Your task to perform on an android device: Search for pizza restaurants on Maps Image 0: 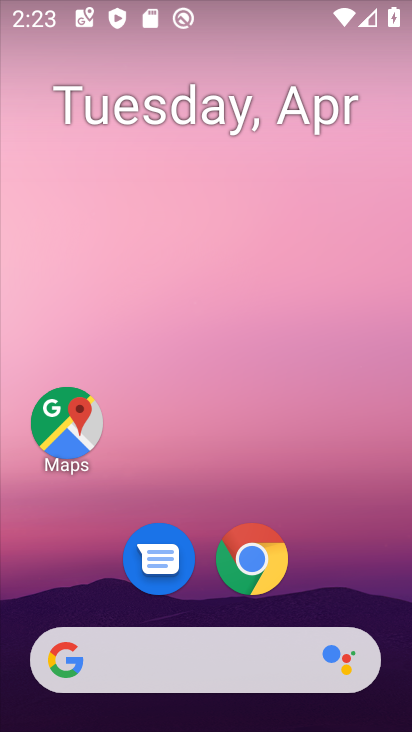
Step 0: drag from (177, 584) to (254, 129)
Your task to perform on an android device: Search for pizza restaurants on Maps Image 1: 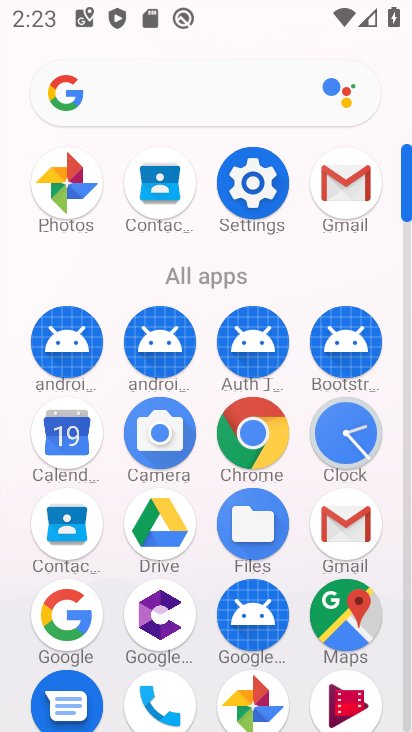
Step 1: click (356, 619)
Your task to perform on an android device: Search for pizza restaurants on Maps Image 2: 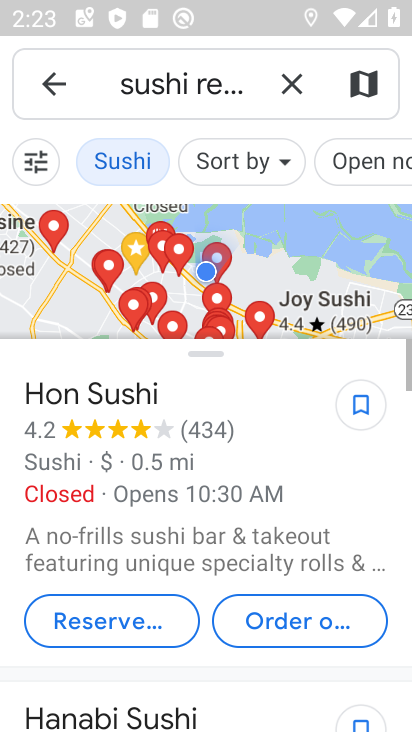
Step 2: click (295, 84)
Your task to perform on an android device: Search for pizza restaurants on Maps Image 3: 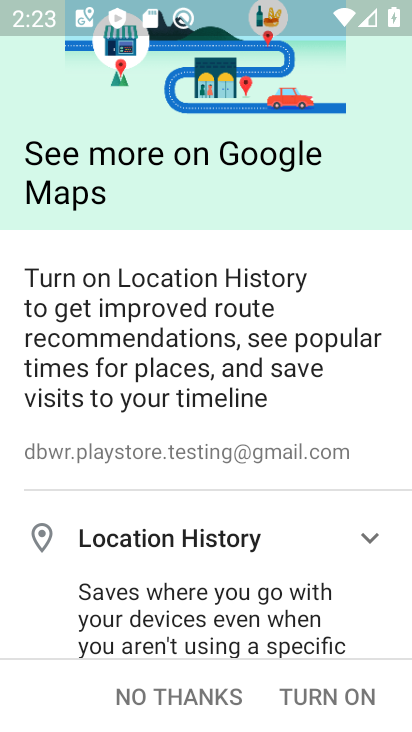
Step 3: click (193, 699)
Your task to perform on an android device: Search for pizza restaurants on Maps Image 4: 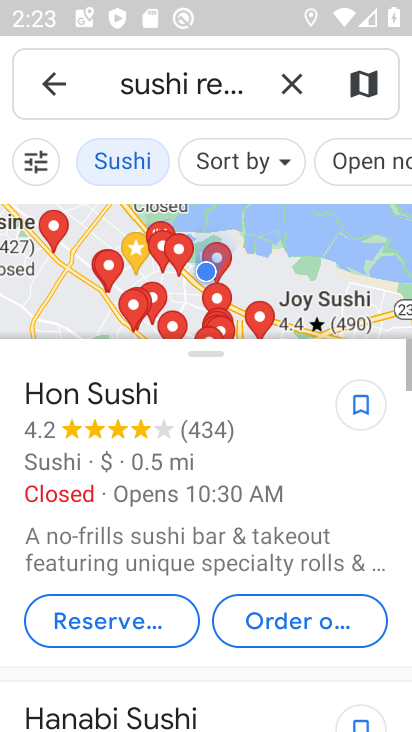
Step 4: click (301, 84)
Your task to perform on an android device: Search for pizza restaurants on Maps Image 5: 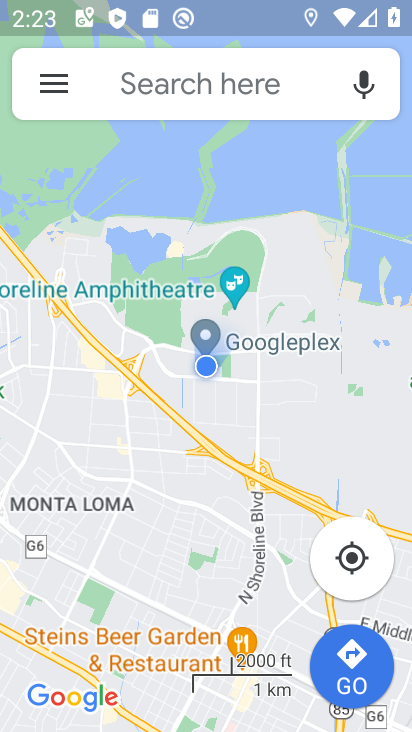
Step 5: click (183, 91)
Your task to perform on an android device: Search for pizza restaurants on Maps Image 6: 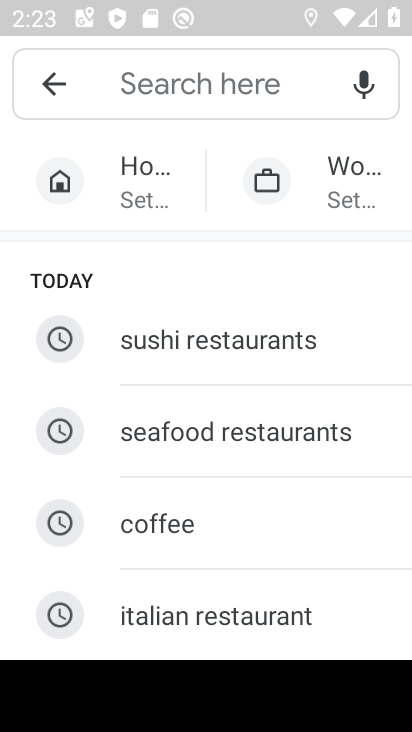
Step 6: type "Pizza restaurants "
Your task to perform on an android device: Search for pizza restaurants on Maps Image 7: 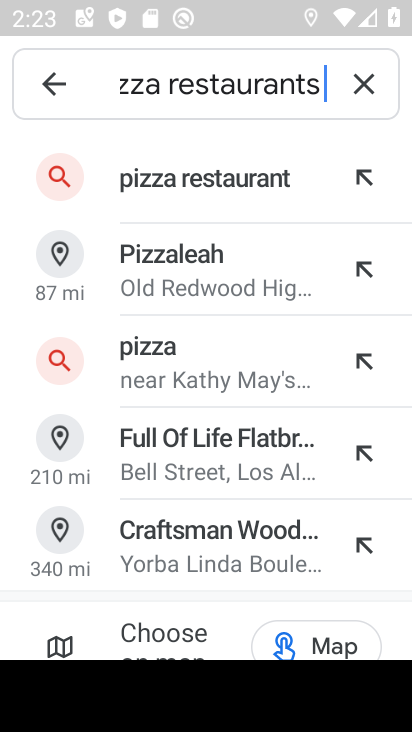
Step 7: click (197, 205)
Your task to perform on an android device: Search for pizza restaurants on Maps Image 8: 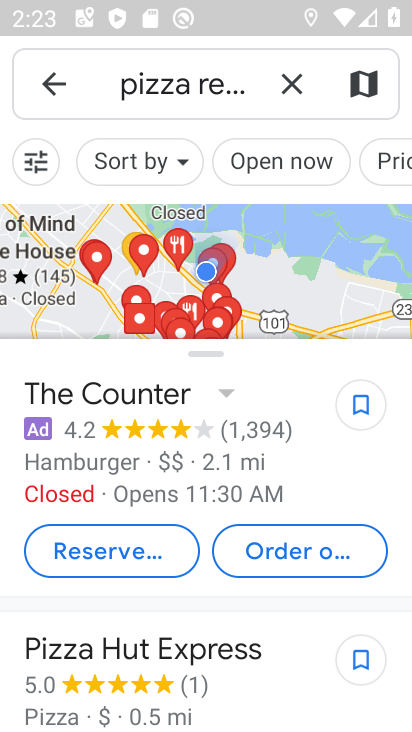
Step 8: task complete